Your task to perform on an android device: What's the weather today? Image 0: 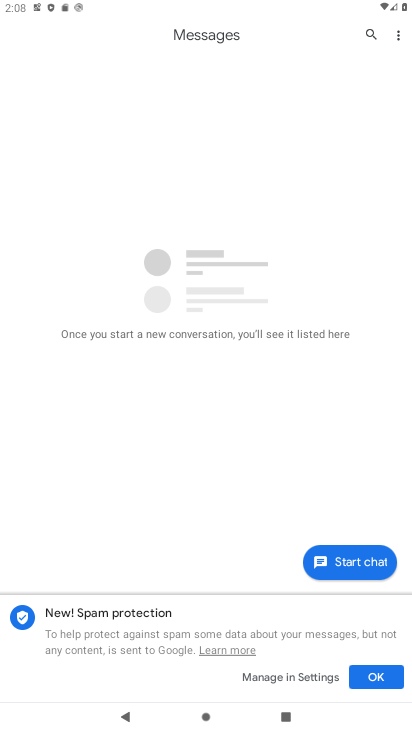
Step 0: press home button
Your task to perform on an android device: What's the weather today? Image 1: 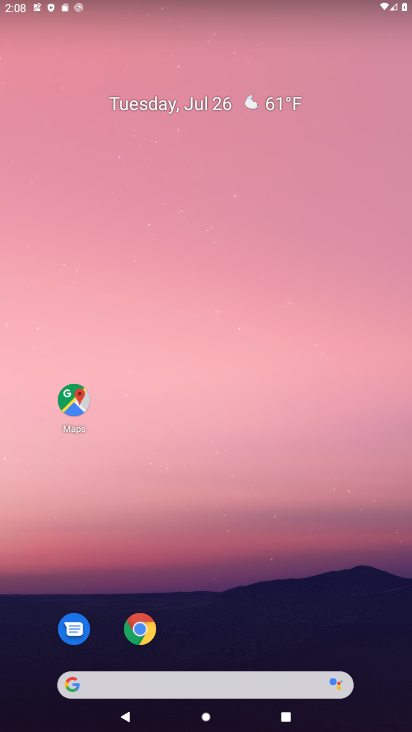
Step 1: click (115, 684)
Your task to perform on an android device: What's the weather today? Image 2: 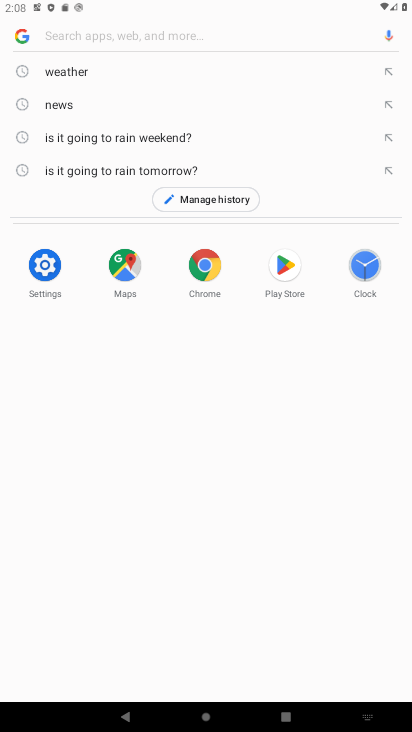
Step 2: click (65, 80)
Your task to perform on an android device: What's the weather today? Image 3: 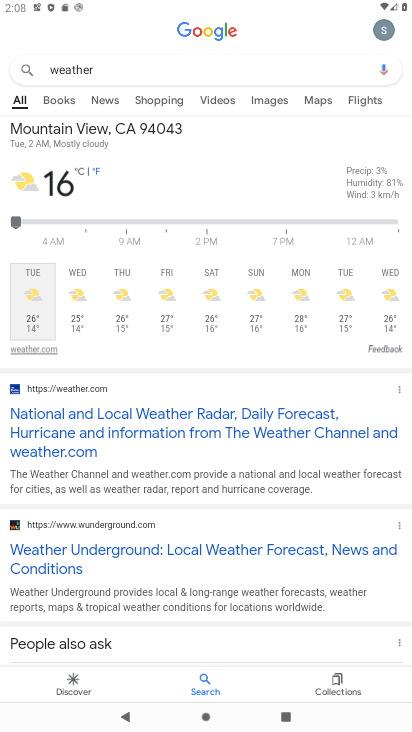
Step 3: task complete